Your task to perform on an android device: set the timer Image 0: 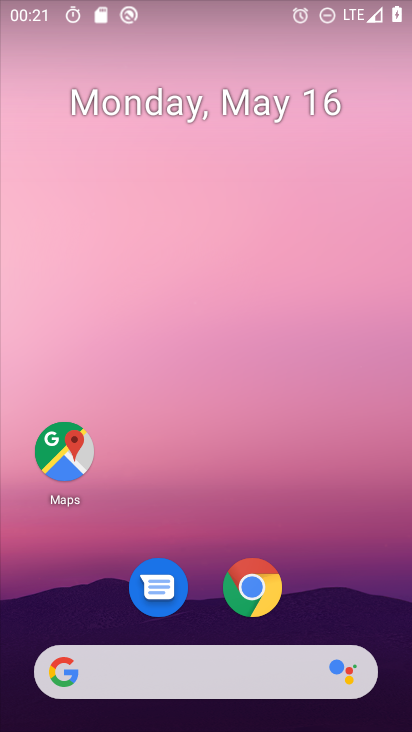
Step 0: drag from (205, 621) to (191, 217)
Your task to perform on an android device: set the timer Image 1: 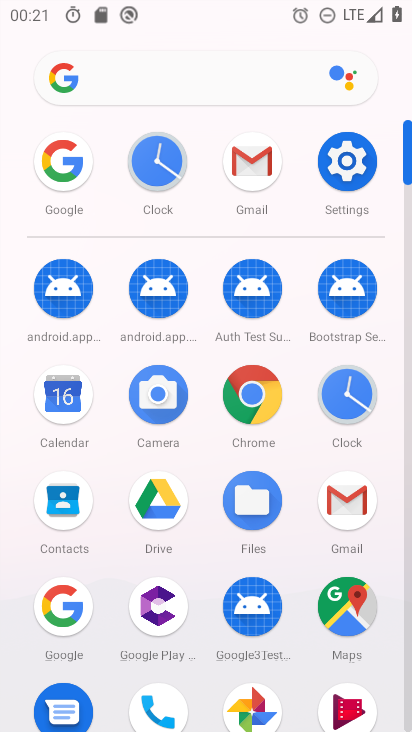
Step 1: click (339, 379)
Your task to perform on an android device: set the timer Image 2: 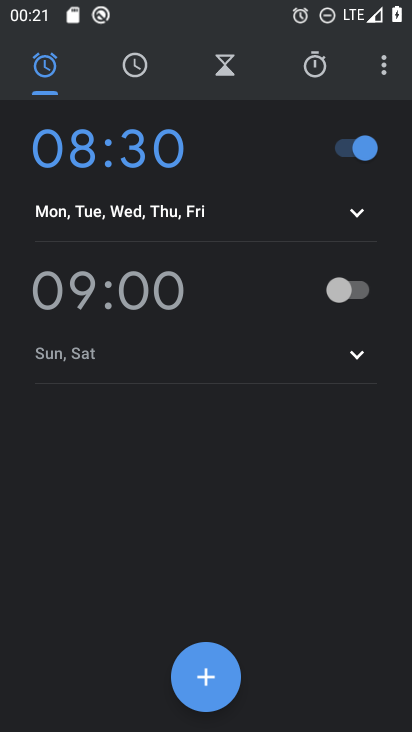
Step 2: click (235, 58)
Your task to perform on an android device: set the timer Image 3: 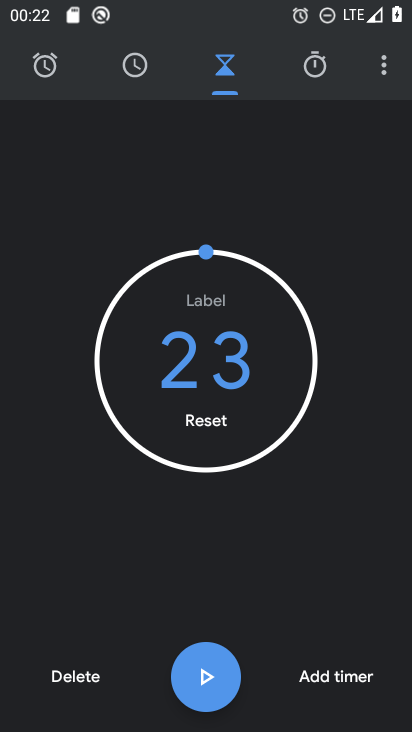
Step 3: click (218, 656)
Your task to perform on an android device: set the timer Image 4: 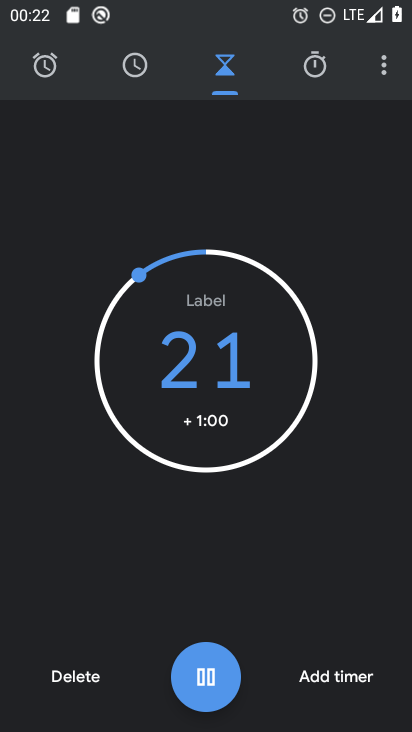
Step 4: task complete